Your task to perform on an android device: turn off wifi Image 0: 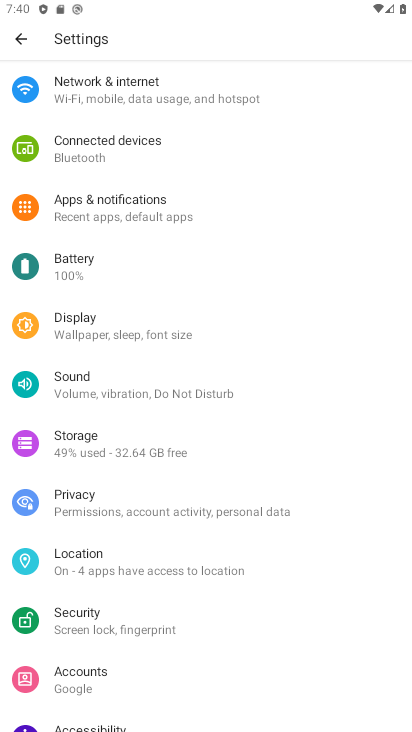
Step 0: click (110, 96)
Your task to perform on an android device: turn off wifi Image 1: 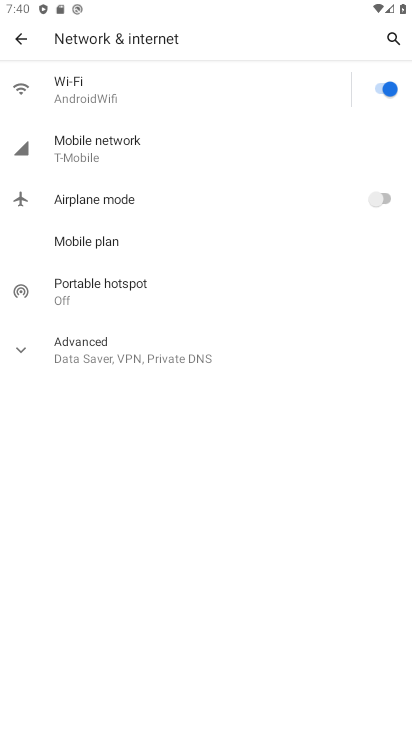
Step 1: click (385, 91)
Your task to perform on an android device: turn off wifi Image 2: 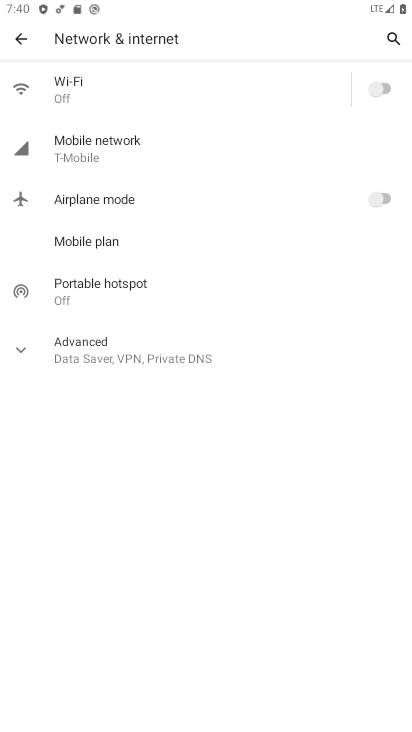
Step 2: task complete